Your task to perform on an android device: Go to notification settings Image 0: 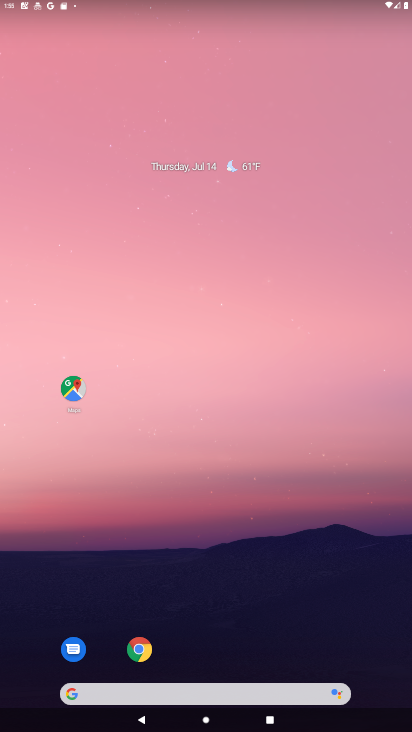
Step 0: drag from (264, 407) to (220, 134)
Your task to perform on an android device: Go to notification settings Image 1: 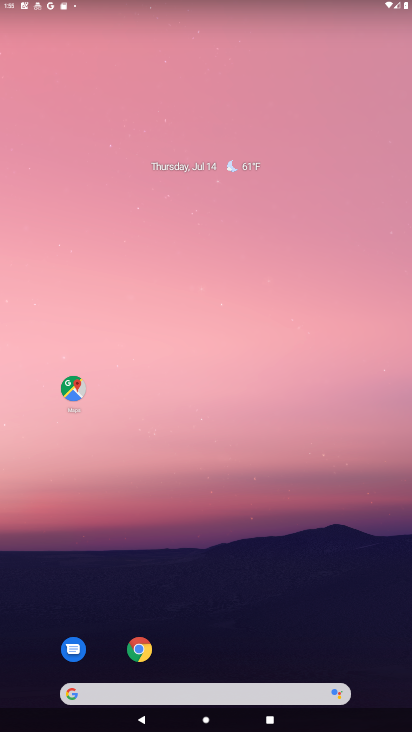
Step 1: drag from (195, 656) to (204, 41)
Your task to perform on an android device: Go to notification settings Image 2: 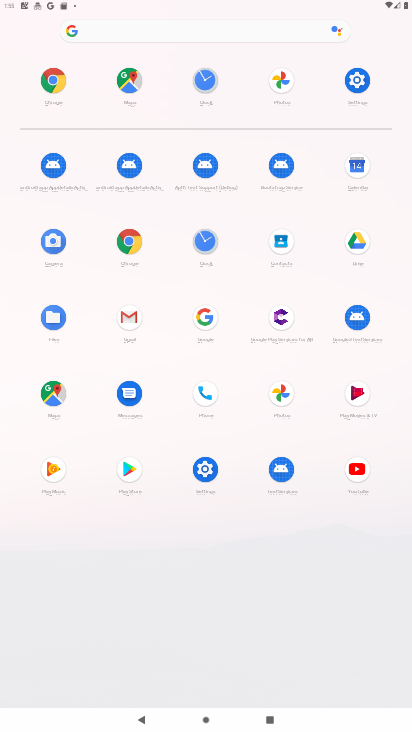
Step 2: click (341, 65)
Your task to perform on an android device: Go to notification settings Image 3: 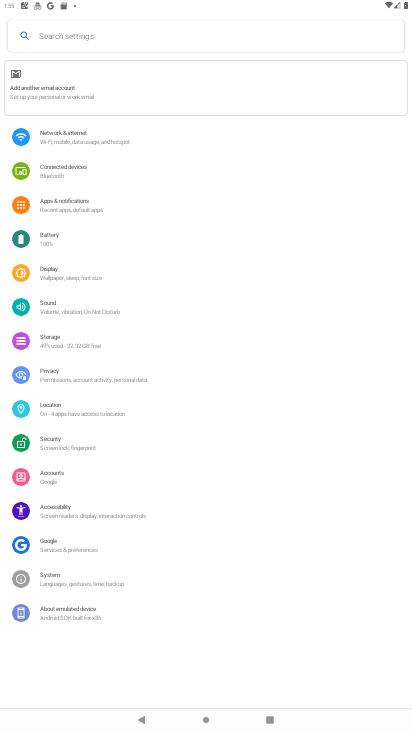
Step 3: click (75, 202)
Your task to perform on an android device: Go to notification settings Image 4: 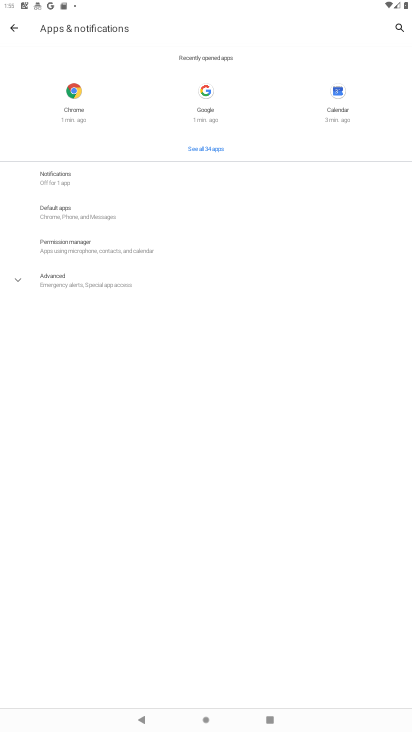
Step 4: task complete